Your task to perform on an android device: Show me recent news Image 0: 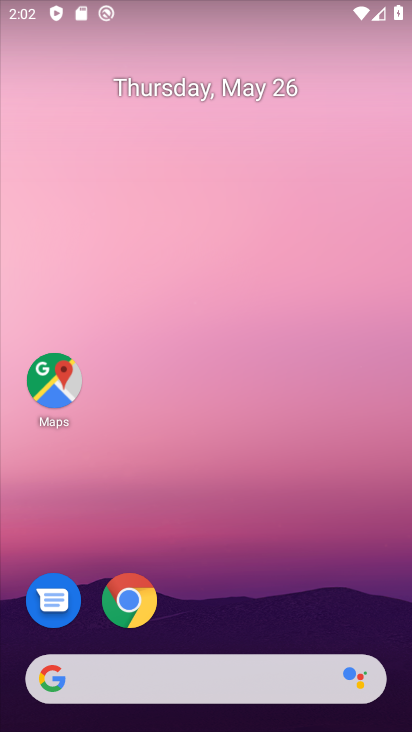
Step 0: drag from (248, 617) to (259, 149)
Your task to perform on an android device: Show me recent news Image 1: 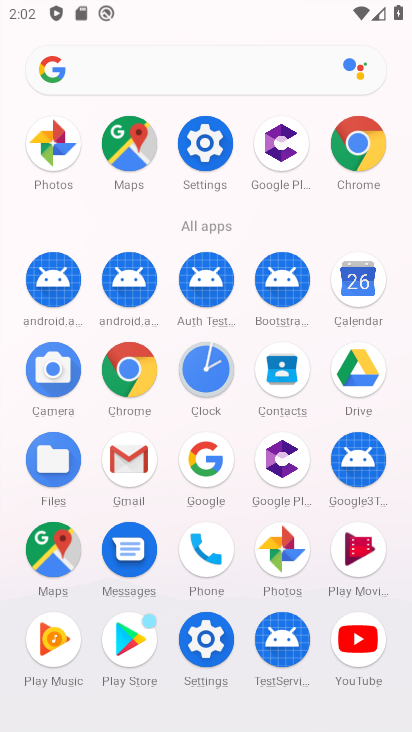
Step 1: click (215, 463)
Your task to perform on an android device: Show me recent news Image 2: 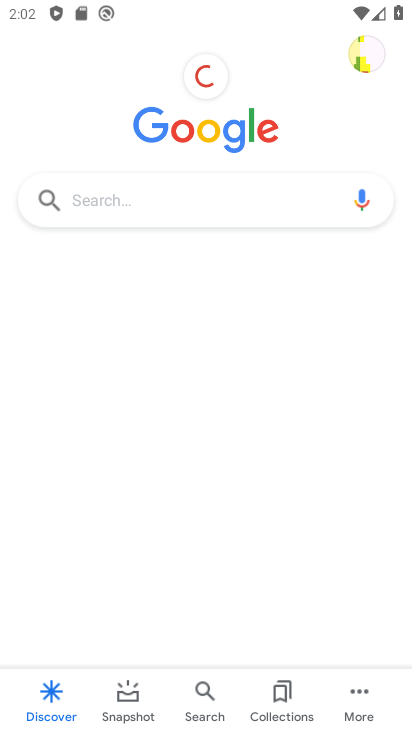
Step 2: click (190, 218)
Your task to perform on an android device: Show me recent news Image 3: 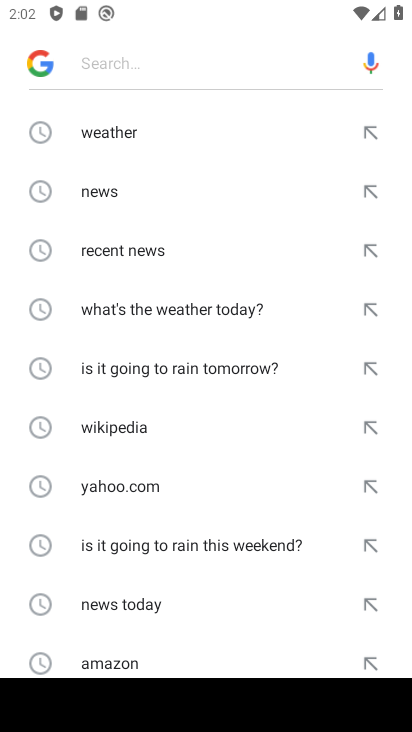
Step 3: click (177, 253)
Your task to perform on an android device: Show me recent news Image 4: 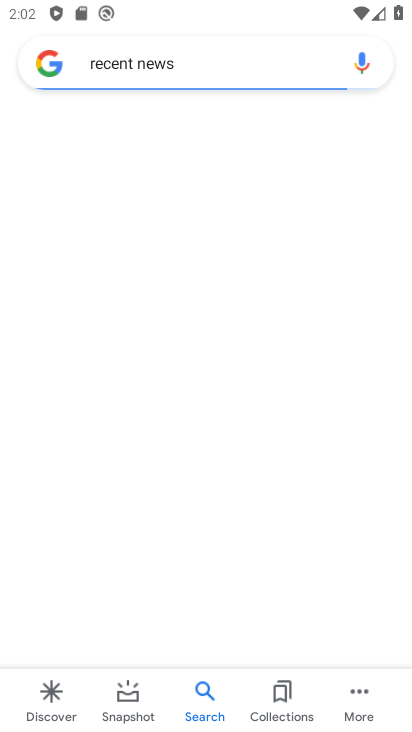
Step 4: task complete